Your task to perform on an android device: open chrome privacy settings Image 0: 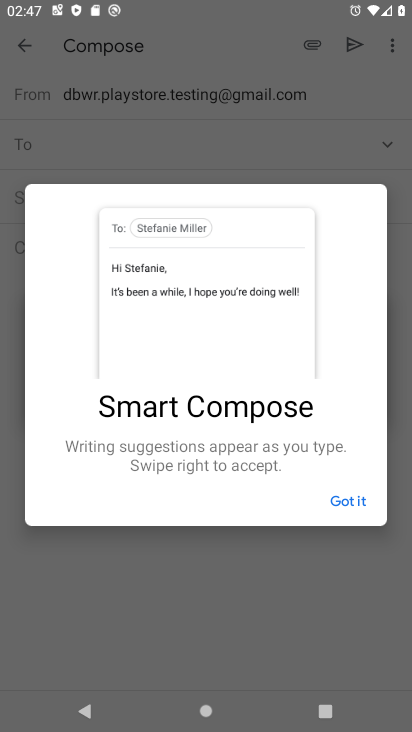
Step 0: click (344, 502)
Your task to perform on an android device: open chrome privacy settings Image 1: 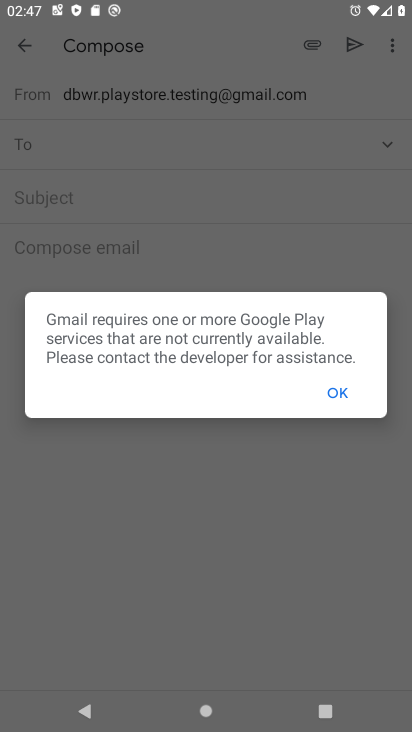
Step 1: press home button
Your task to perform on an android device: open chrome privacy settings Image 2: 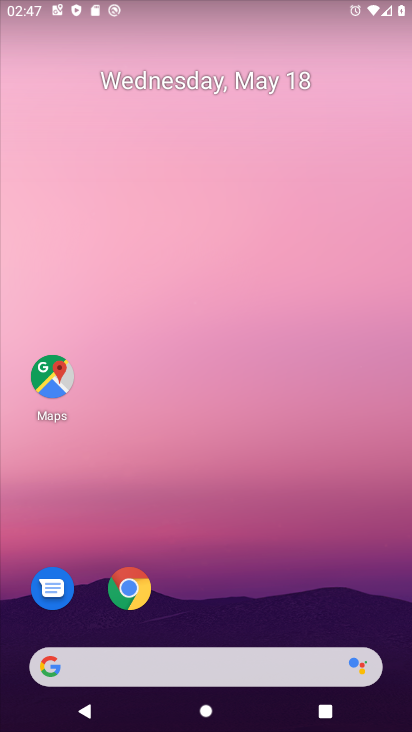
Step 2: click (139, 592)
Your task to perform on an android device: open chrome privacy settings Image 3: 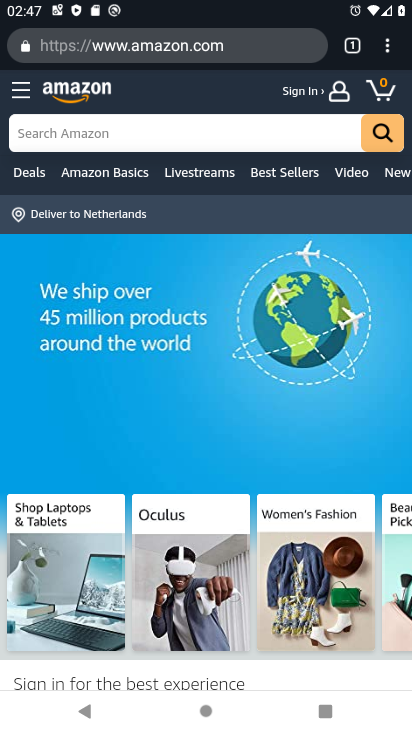
Step 3: click (15, 91)
Your task to perform on an android device: open chrome privacy settings Image 4: 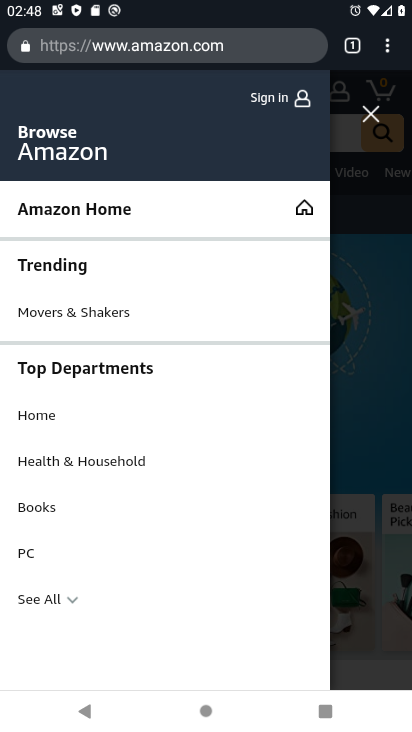
Step 4: click (386, 47)
Your task to perform on an android device: open chrome privacy settings Image 5: 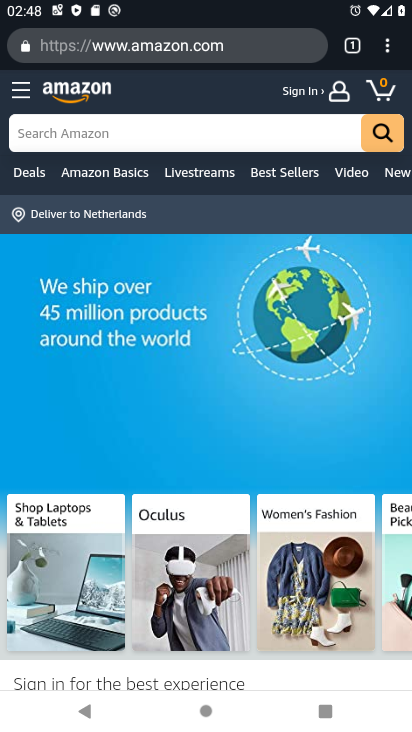
Step 5: click (384, 43)
Your task to perform on an android device: open chrome privacy settings Image 6: 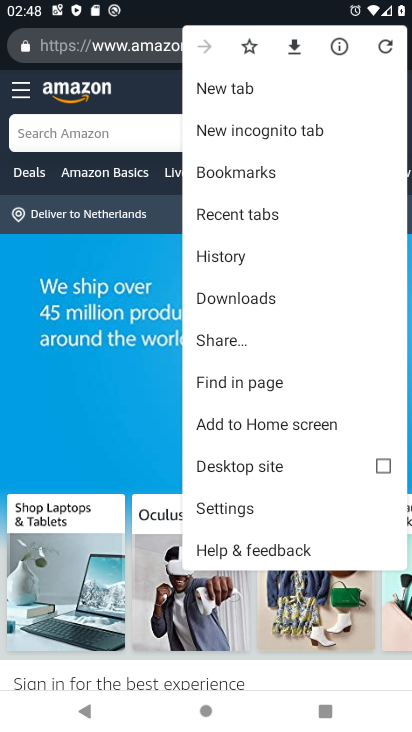
Step 6: click (233, 509)
Your task to perform on an android device: open chrome privacy settings Image 7: 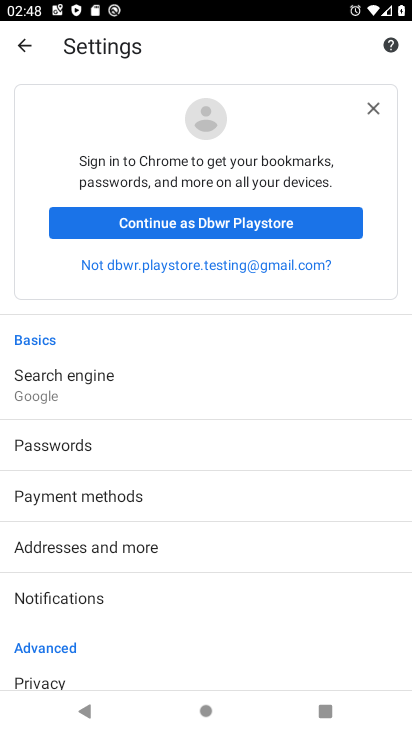
Step 7: click (50, 684)
Your task to perform on an android device: open chrome privacy settings Image 8: 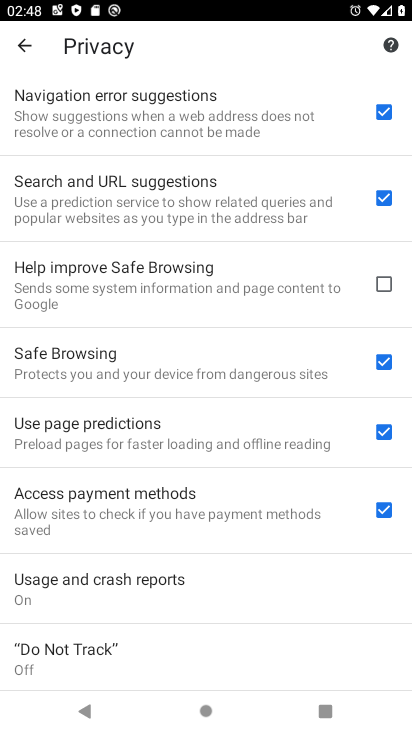
Step 8: task complete